Your task to perform on an android device: Add "jbl charge 4" to the cart on amazon.com Image 0: 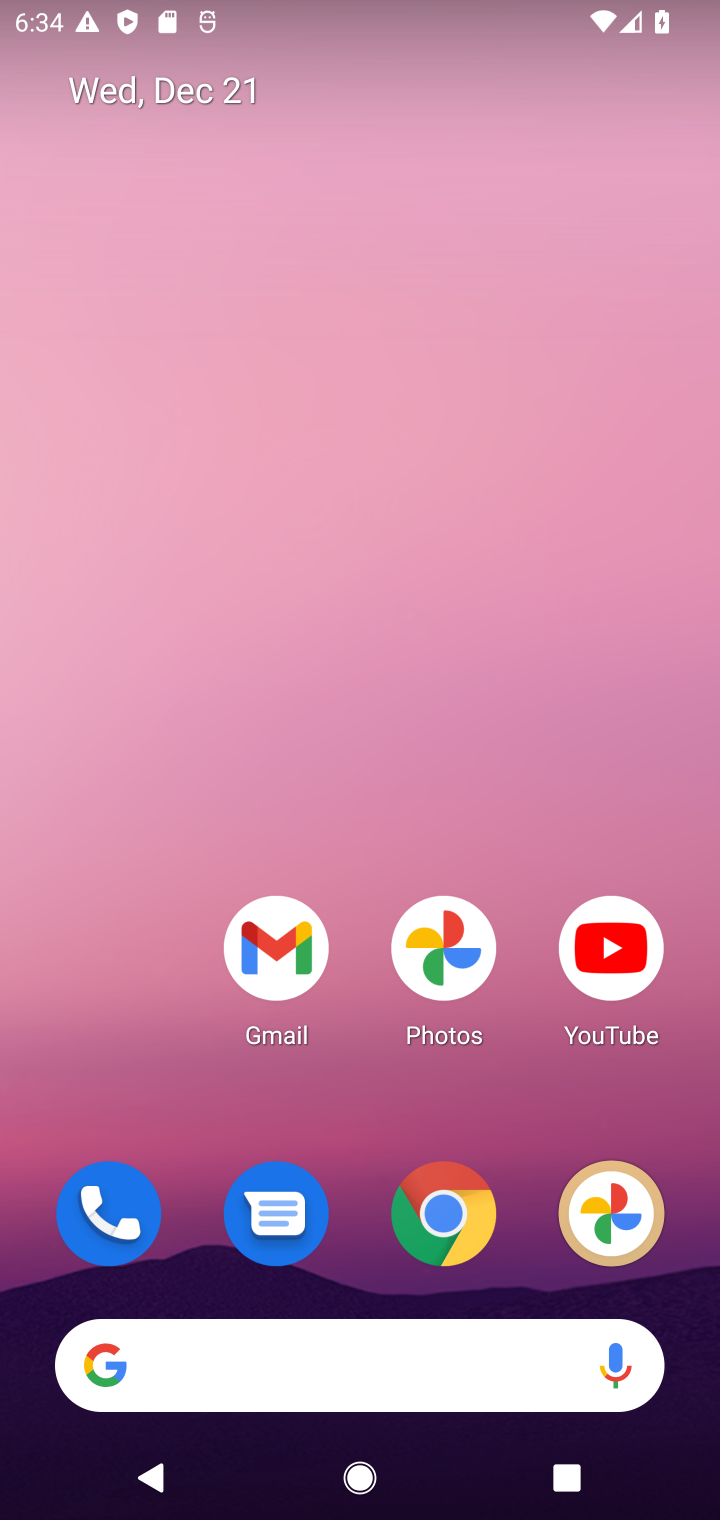
Step 0: click (461, 1221)
Your task to perform on an android device: Add "jbl charge 4" to the cart on amazon.com Image 1: 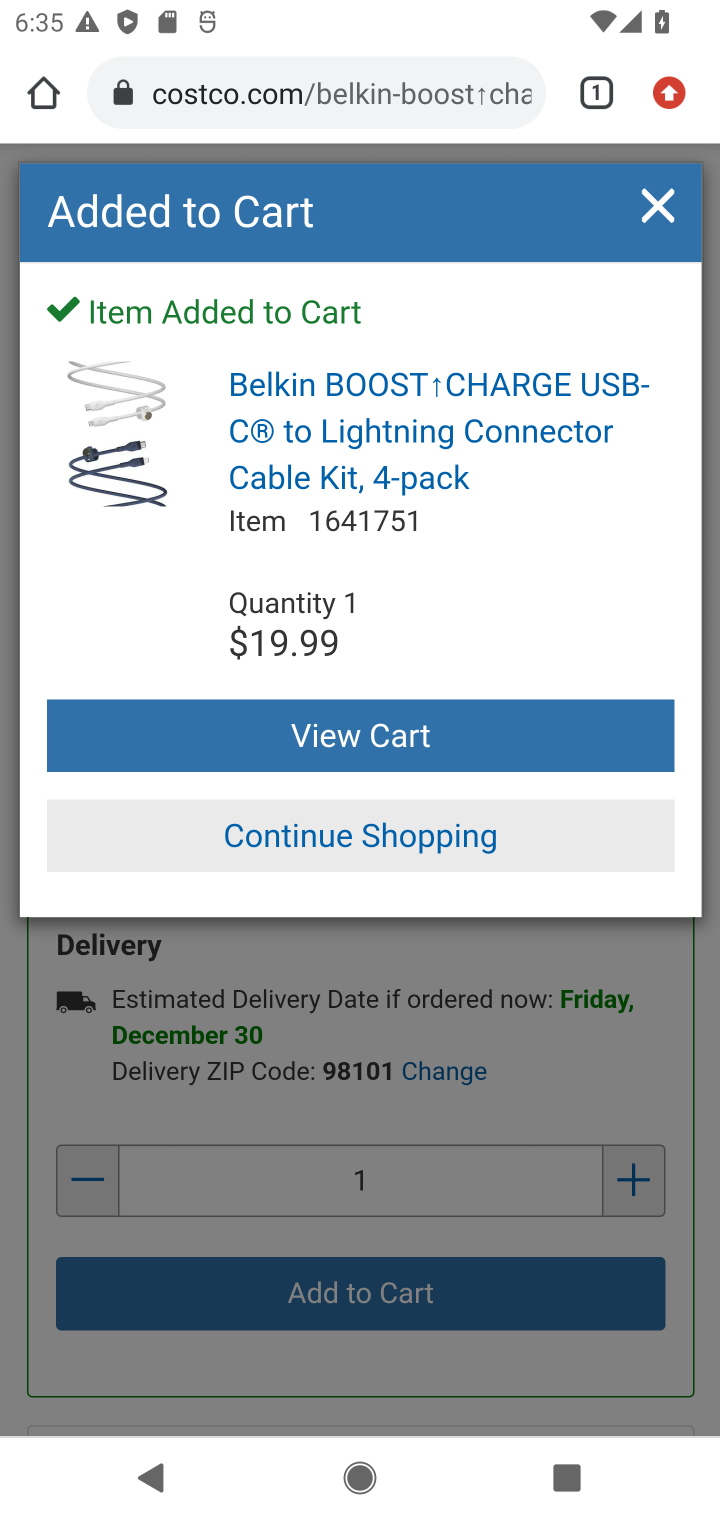
Step 1: task complete